Your task to perform on an android device: Open the stopwatch Image 0: 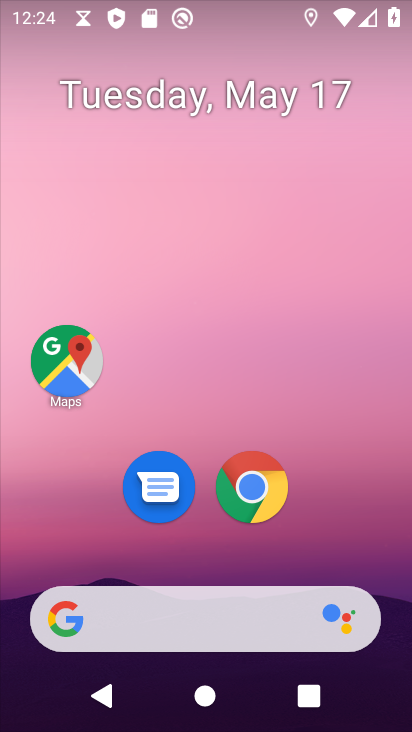
Step 0: drag from (383, 538) to (315, 60)
Your task to perform on an android device: Open the stopwatch Image 1: 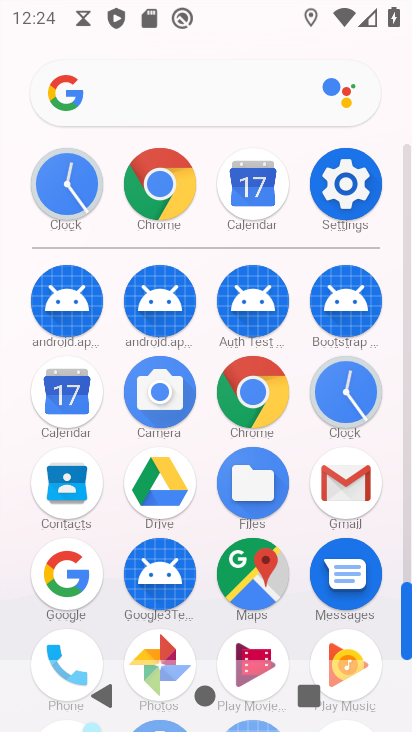
Step 1: drag from (22, 546) to (16, 294)
Your task to perform on an android device: Open the stopwatch Image 2: 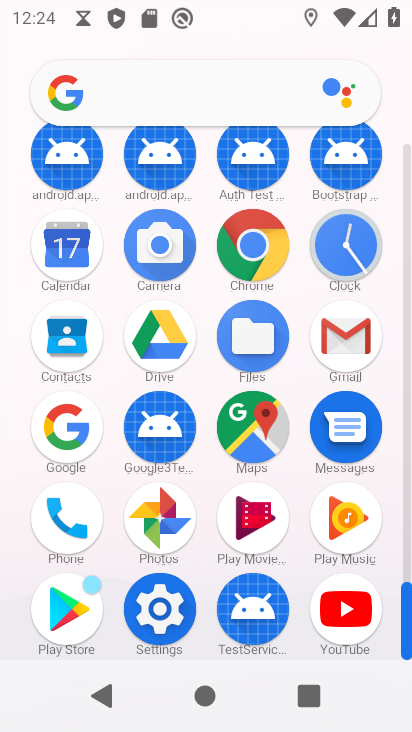
Step 2: click (345, 237)
Your task to perform on an android device: Open the stopwatch Image 3: 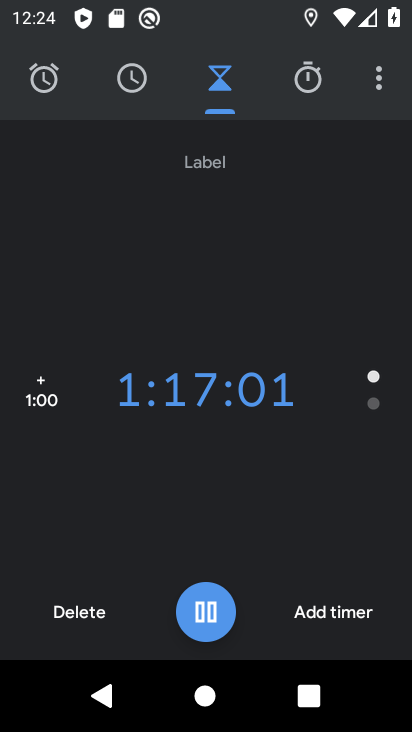
Step 3: click (303, 73)
Your task to perform on an android device: Open the stopwatch Image 4: 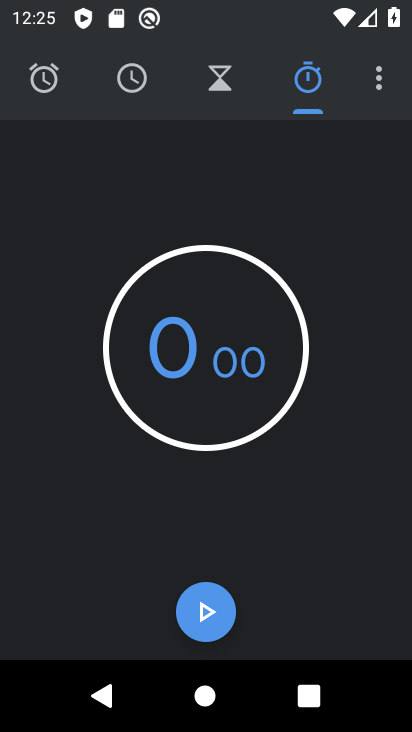
Step 4: task complete